Your task to perform on an android device: open a bookmark in the chrome app Image 0: 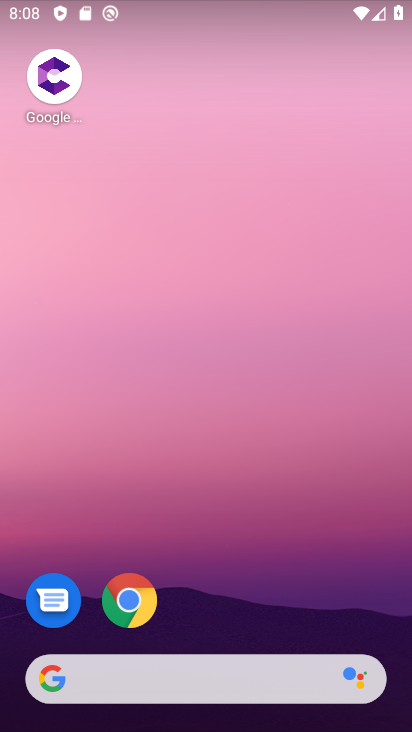
Step 0: drag from (225, 688) to (296, 233)
Your task to perform on an android device: open a bookmark in the chrome app Image 1: 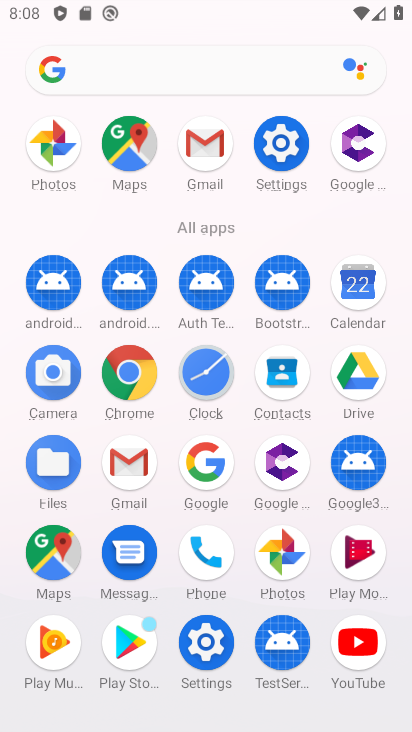
Step 1: drag from (227, 512) to (234, 257)
Your task to perform on an android device: open a bookmark in the chrome app Image 2: 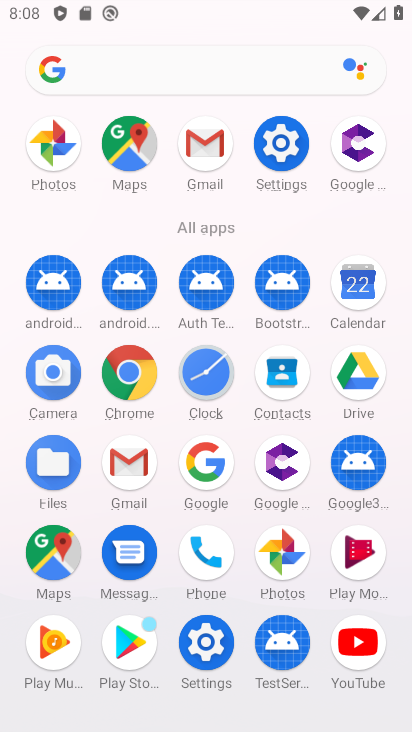
Step 2: click (143, 389)
Your task to perform on an android device: open a bookmark in the chrome app Image 3: 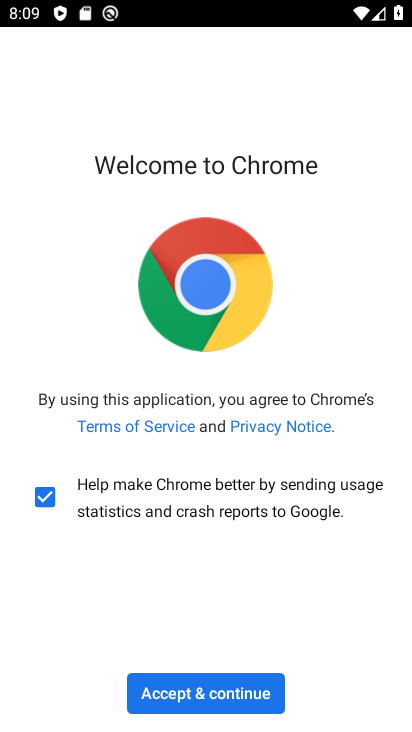
Step 3: click (173, 699)
Your task to perform on an android device: open a bookmark in the chrome app Image 4: 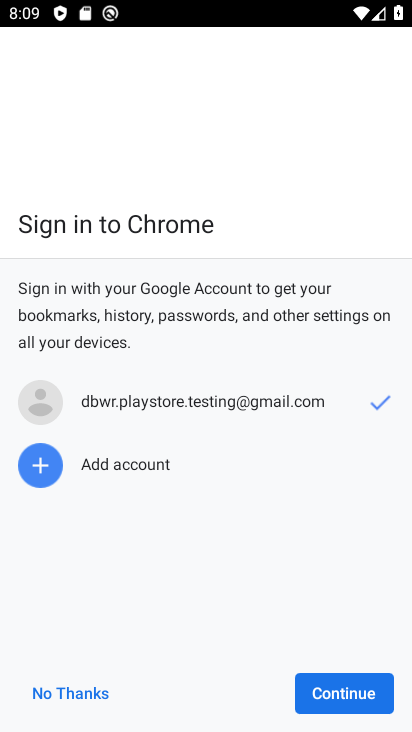
Step 4: click (343, 677)
Your task to perform on an android device: open a bookmark in the chrome app Image 5: 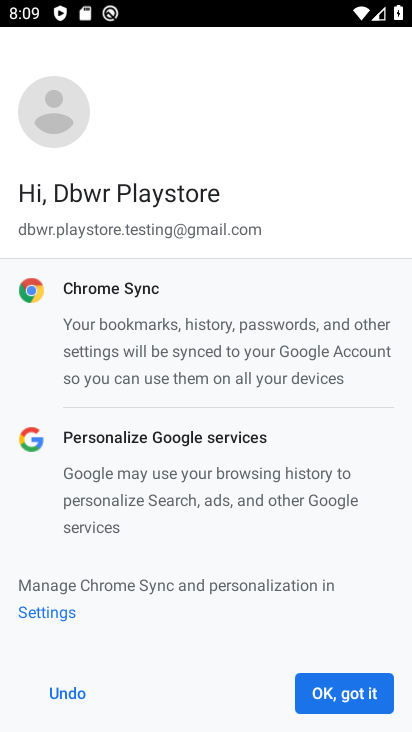
Step 5: click (338, 687)
Your task to perform on an android device: open a bookmark in the chrome app Image 6: 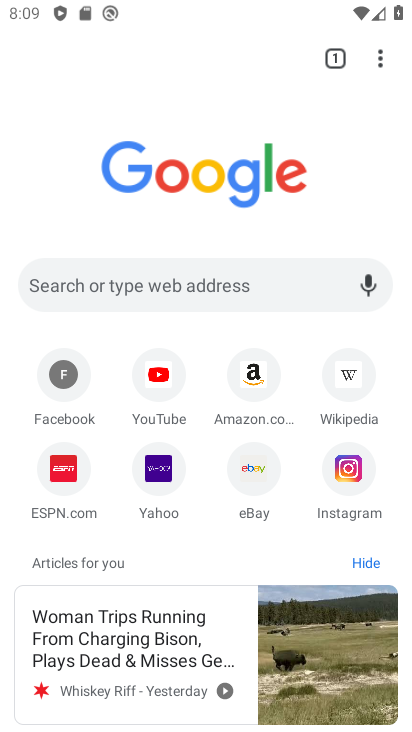
Step 6: click (389, 68)
Your task to perform on an android device: open a bookmark in the chrome app Image 7: 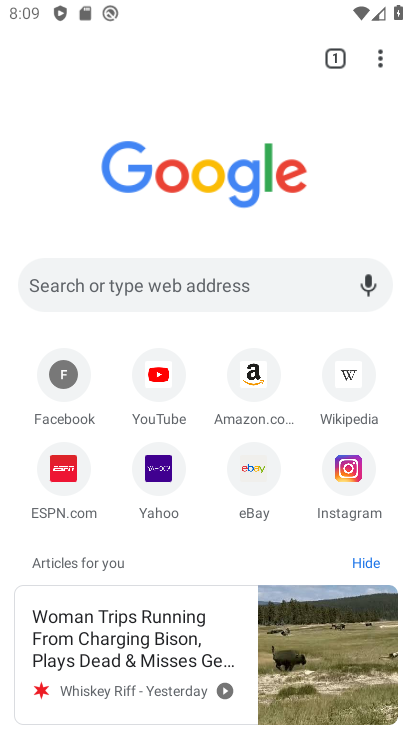
Step 7: click (389, 68)
Your task to perform on an android device: open a bookmark in the chrome app Image 8: 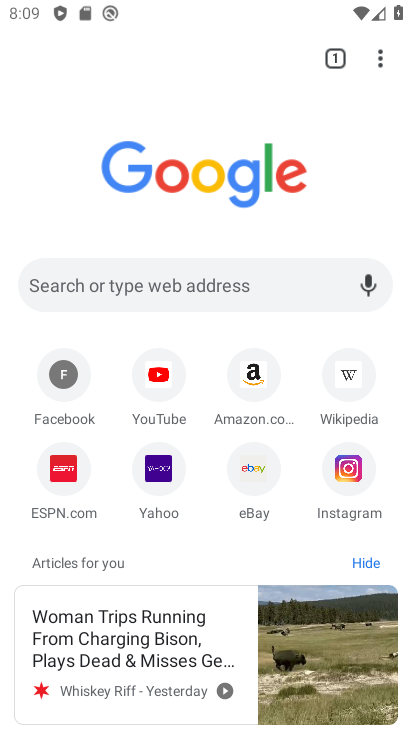
Step 8: click (380, 60)
Your task to perform on an android device: open a bookmark in the chrome app Image 9: 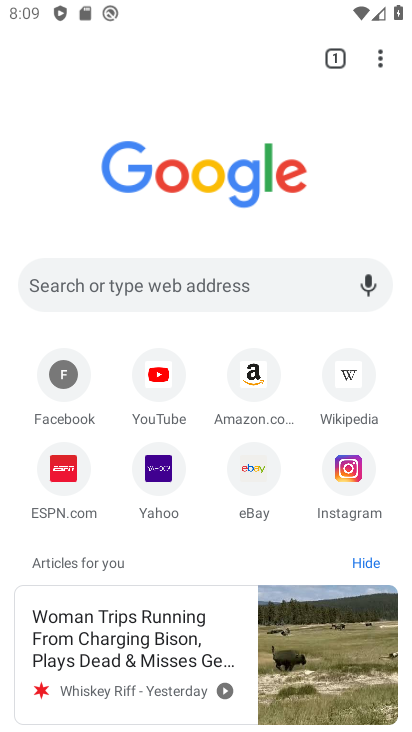
Step 9: click (387, 68)
Your task to perform on an android device: open a bookmark in the chrome app Image 10: 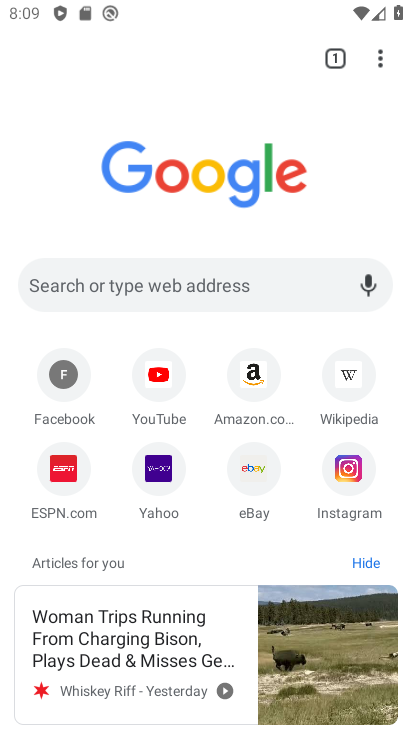
Step 10: click (386, 71)
Your task to perform on an android device: open a bookmark in the chrome app Image 11: 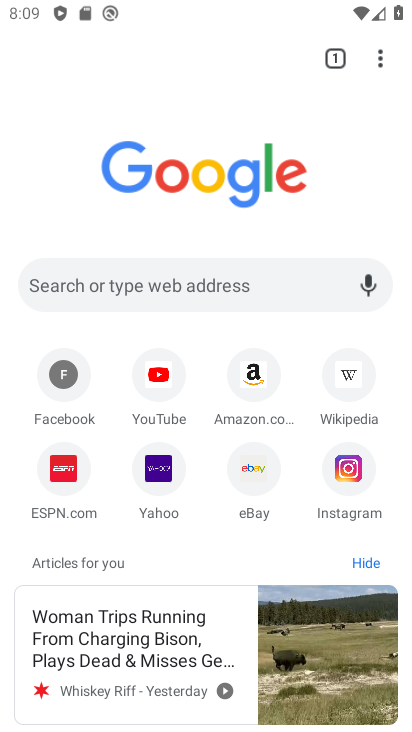
Step 11: click (386, 71)
Your task to perform on an android device: open a bookmark in the chrome app Image 12: 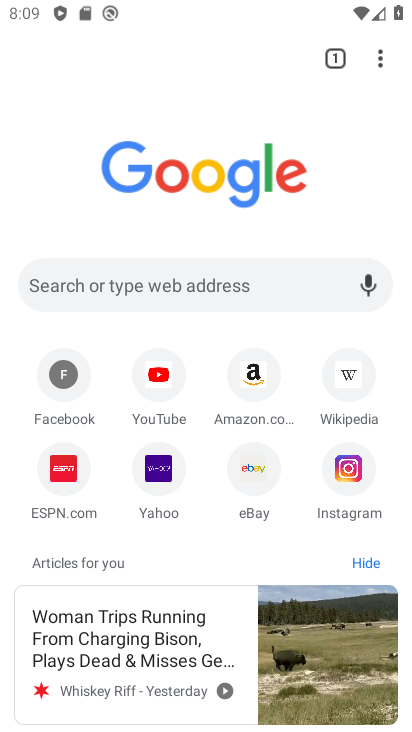
Step 12: click (384, 66)
Your task to perform on an android device: open a bookmark in the chrome app Image 13: 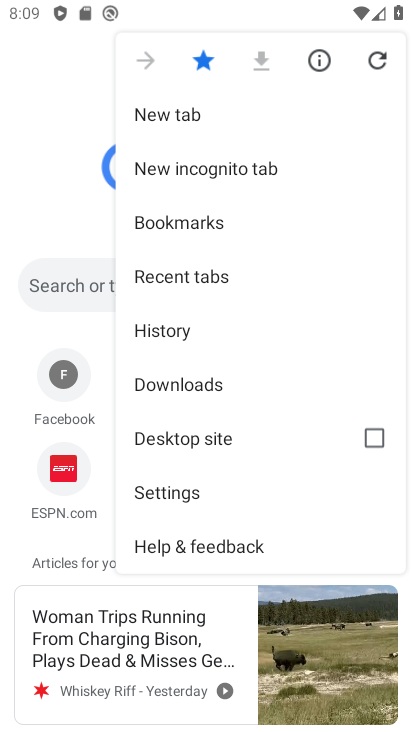
Step 13: click (222, 220)
Your task to perform on an android device: open a bookmark in the chrome app Image 14: 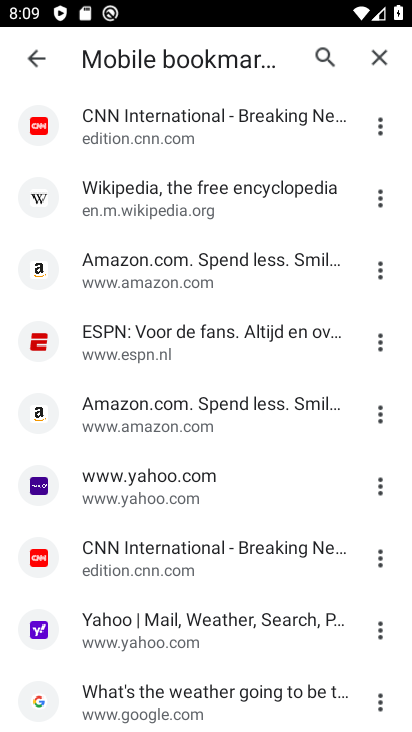
Step 14: click (165, 564)
Your task to perform on an android device: open a bookmark in the chrome app Image 15: 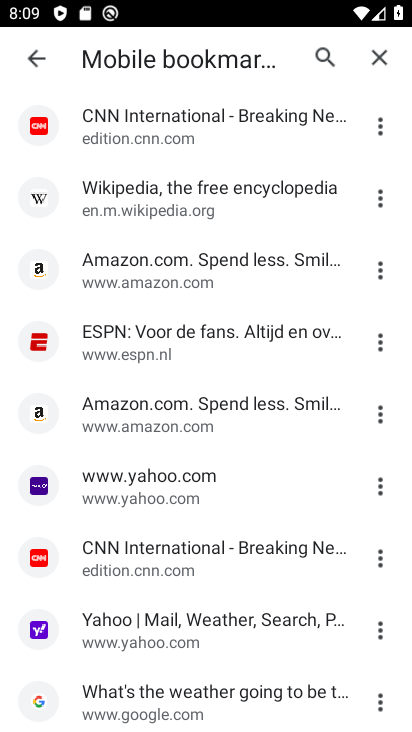
Step 15: click (175, 559)
Your task to perform on an android device: open a bookmark in the chrome app Image 16: 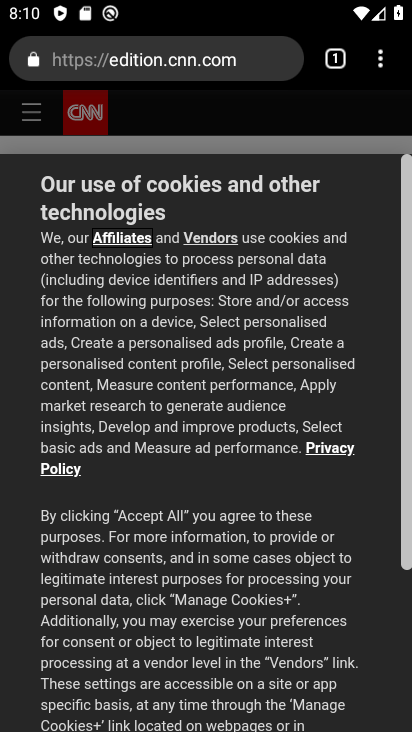
Step 16: task complete